Your task to perform on an android device: Show me the alarms in the clock app Image 0: 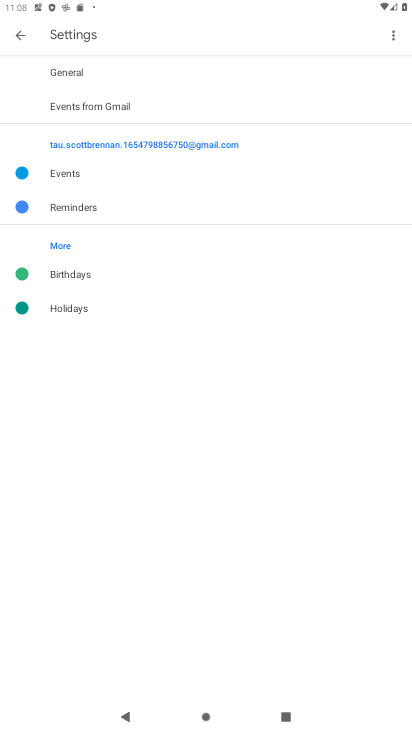
Step 0: press home button
Your task to perform on an android device: Show me the alarms in the clock app Image 1: 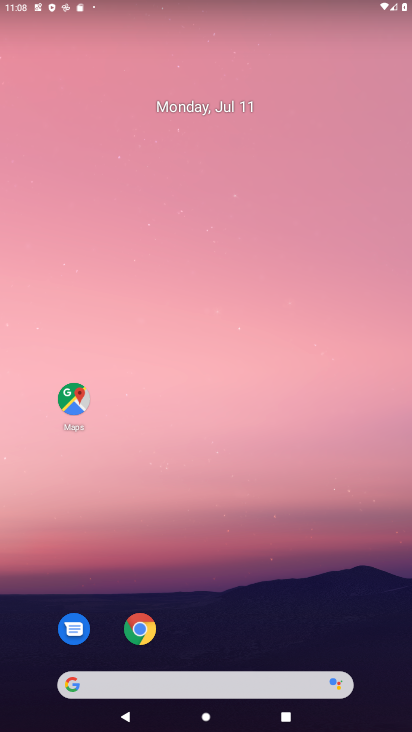
Step 1: drag from (292, 608) to (318, 245)
Your task to perform on an android device: Show me the alarms in the clock app Image 2: 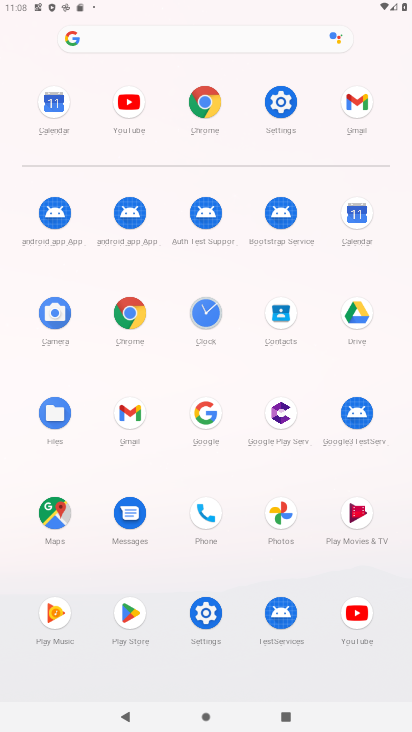
Step 2: click (200, 327)
Your task to perform on an android device: Show me the alarms in the clock app Image 3: 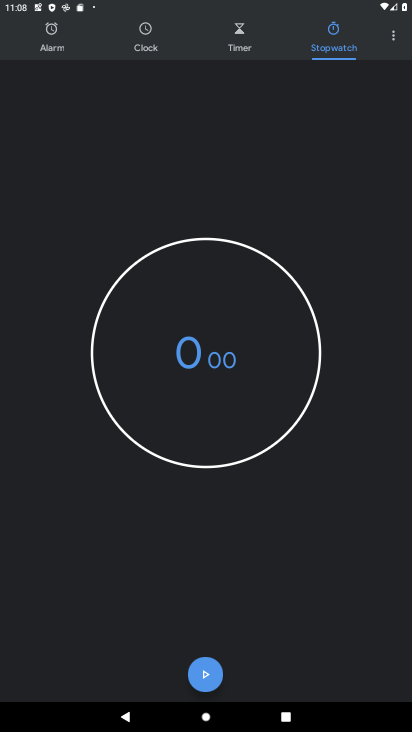
Step 3: click (39, 41)
Your task to perform on an android device: Show me the alarms in the clock app Image 4: 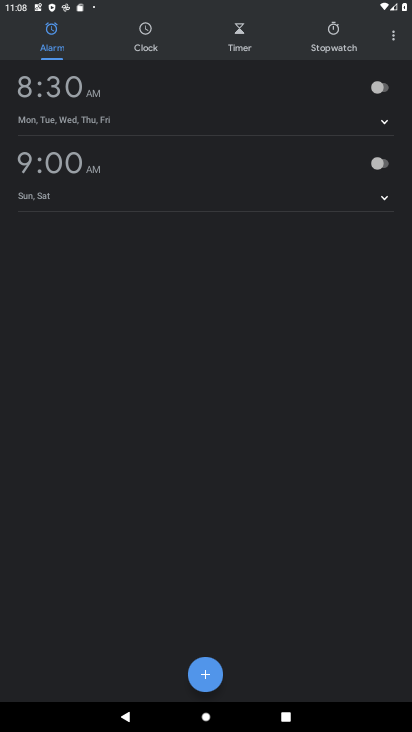
Step 4: click (363, 107)
Your task to perform on an android device: Show me the alarms in the clock app Image 5: 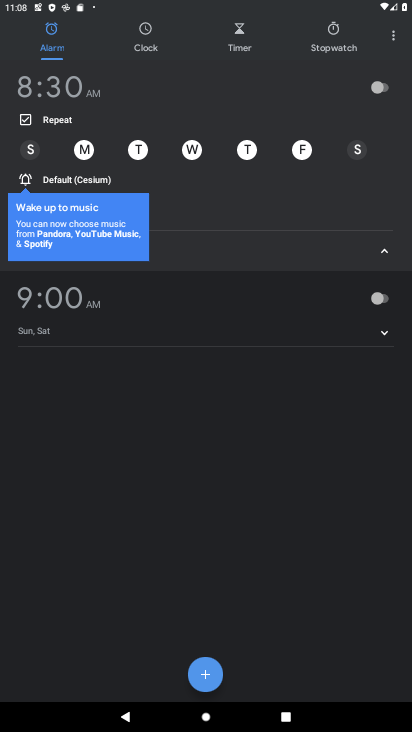
Step 5: task complete